Your task to perform on an android device: toggle notification dots Image 0: 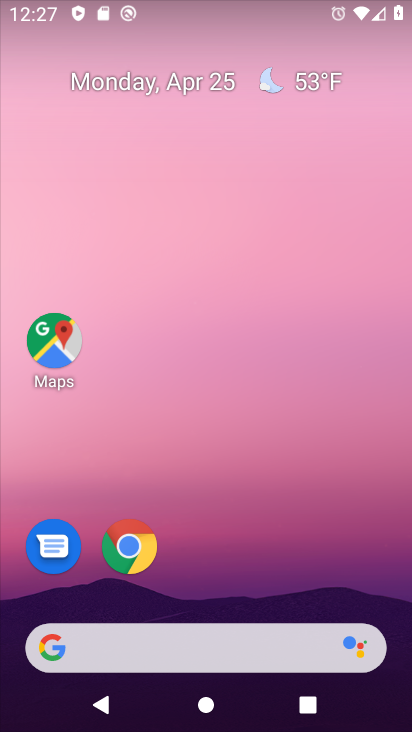
Step 0: drag from (227, 574) to (226, 160)
Your task to perform on an android device: toggle notification dots Image 1: 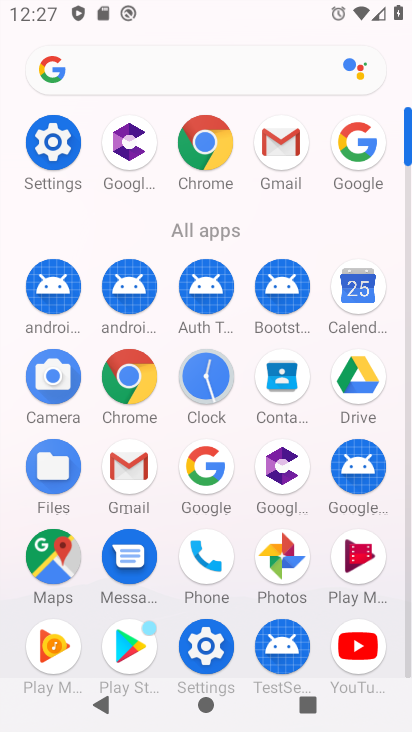
Step 1: click (32, 130)
Your task to perform on an android device: toggle notification dots Image 2: 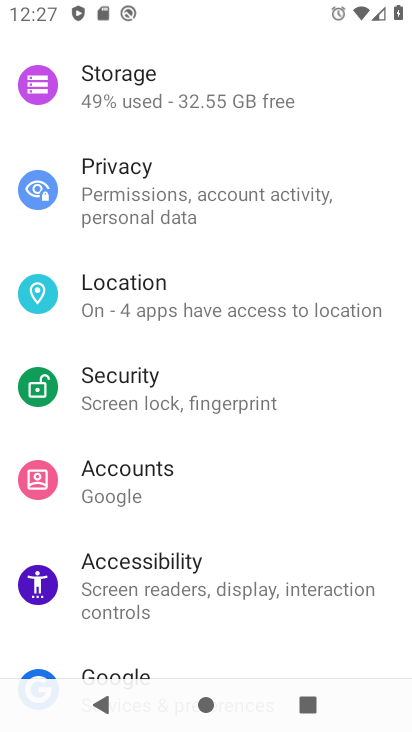
Step 2: drag from (249, 148) to (251, 502)
Your task to perform on an android device: toggle notification dots Image 3: 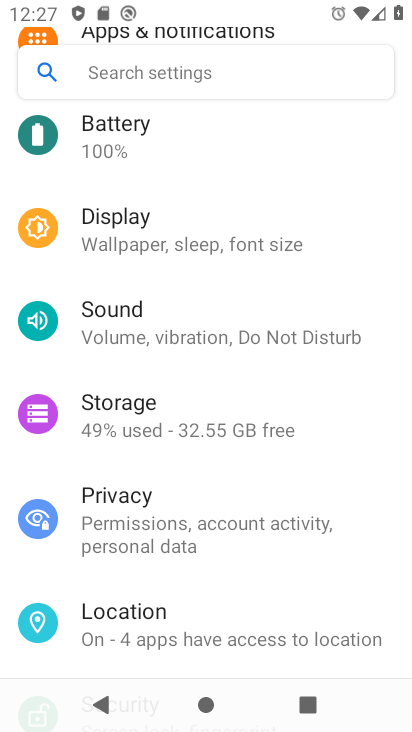
Step 3: drag from (248, 172) to (250, 475)
Your task to perform on an android device: toggle notification dots Image 4: 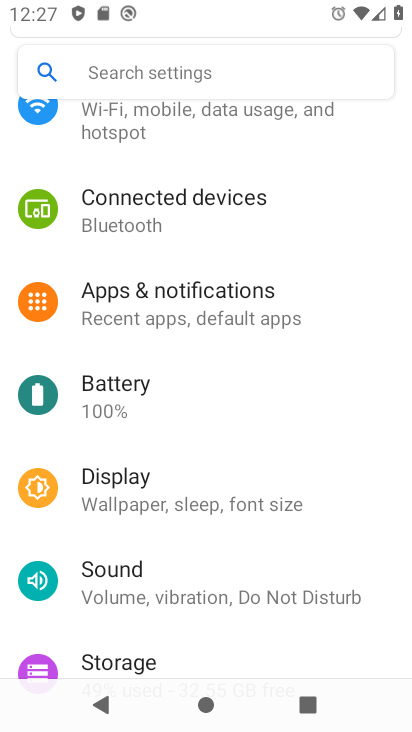
Step 4: click (235, 292)
Your task to perform on an android device: toggle notification dots Image 5: 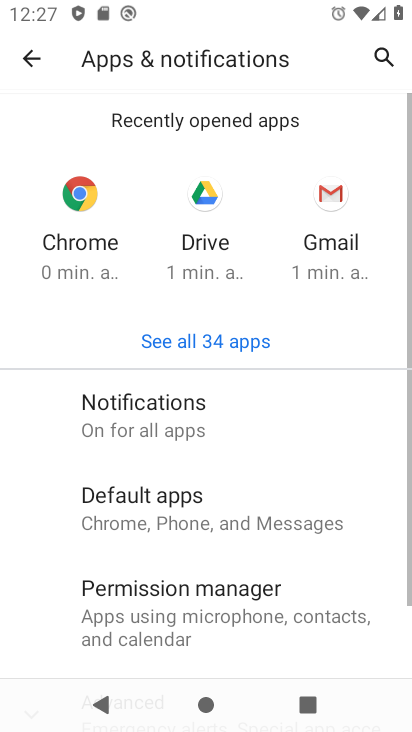
Step 5: click (206, 421)
Your task to perform on an android device: toggle notification dots Image 6: 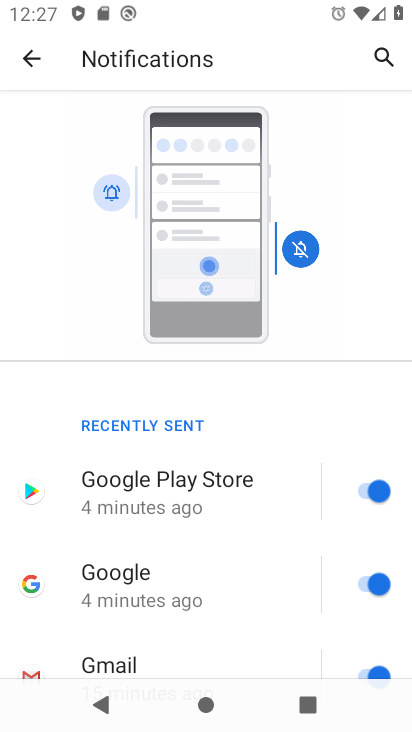
Step 6: drag from (252, 591) to (260, 183)
Your task to perform on an android device: toggle notification dots Image 7: 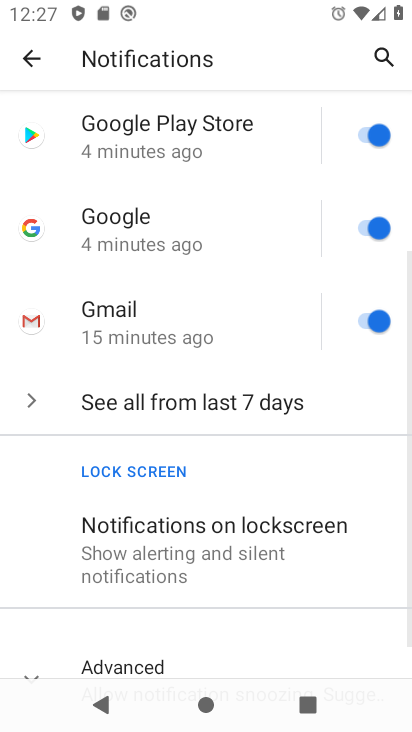
Step 7: drag from (267, 566) to (292, 316)
Your task to perform on an android device: toggle notification dots Image 8: 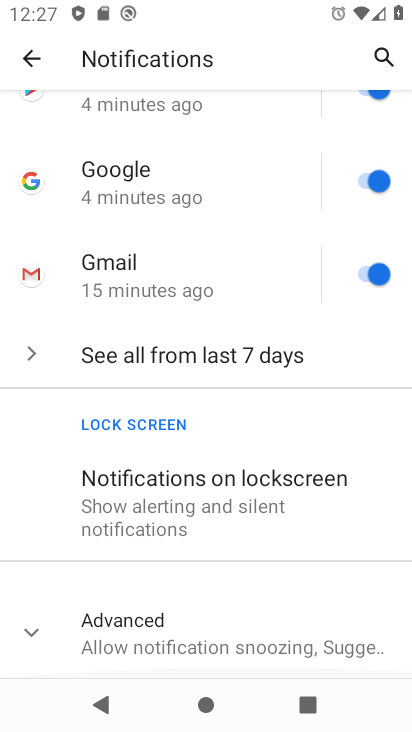
Step 8: click (207, 620)
Your task to perform on an android device: toggle notification dots Image 9: 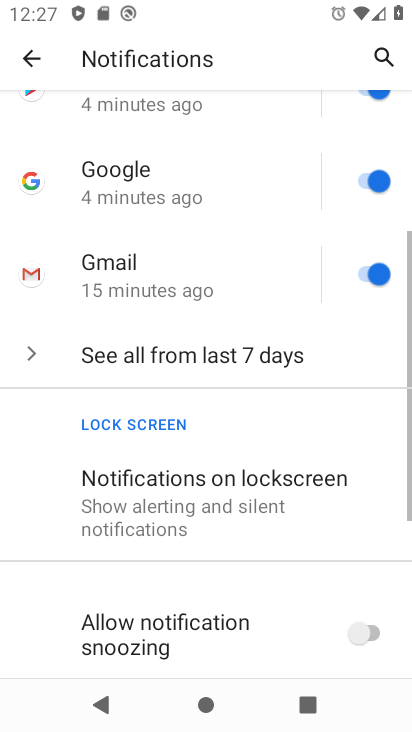
Step 9: drag from (228, 588) to (259, 280)
Your task to perform on an android device: toggle notification dots Image 10: 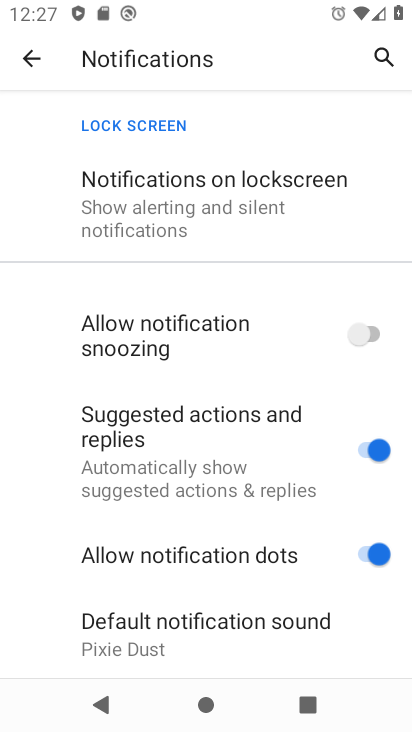
Step 10: click (358, 549)
Your task to perform on an android device: toggle notification dots Image 11: 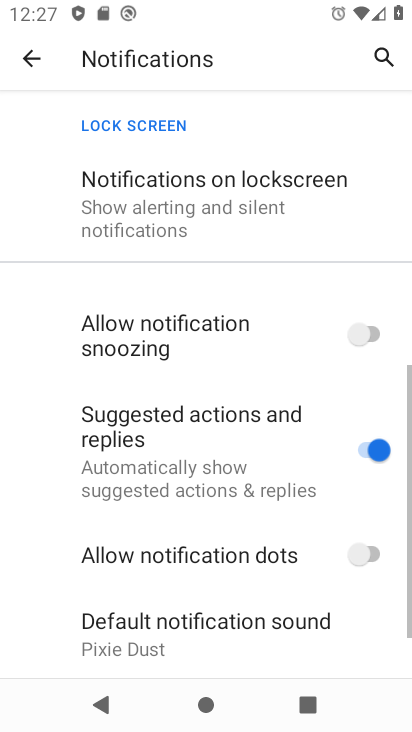
Step 11: task complete